Your task to perform on an android device: toggle airplane mode Image 0: 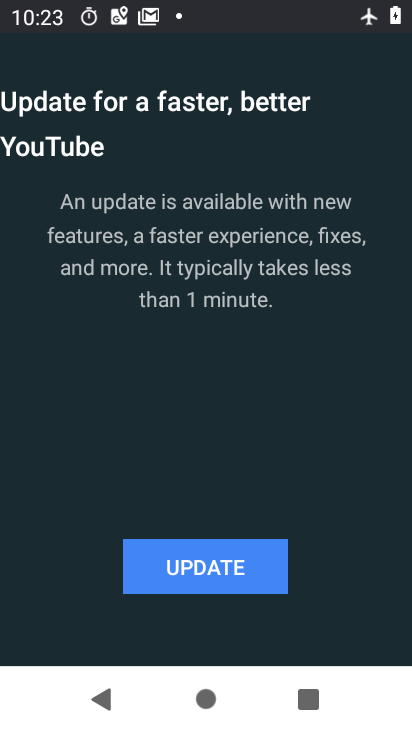
Step 0: press home button
Your task to perform on an android device: toggle airplane mode Image 1: 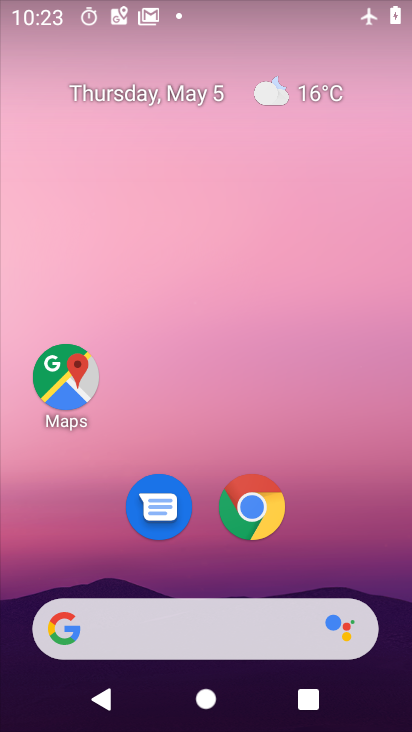
Step 1: drag from (172, 591) to (207, 137)
Your task to perform on an android device: toggle airplane mode Image 2: 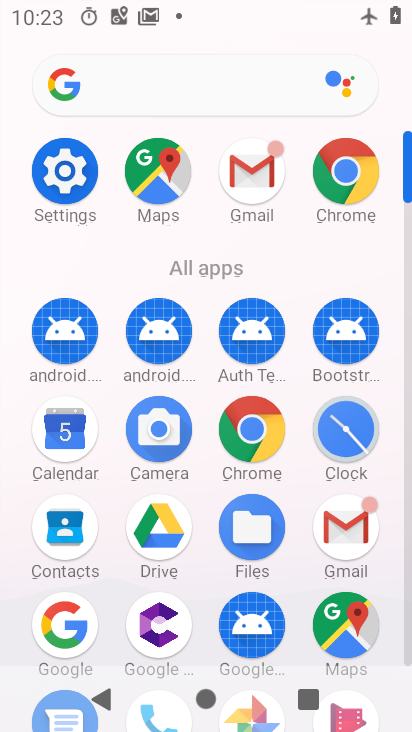
Step 2: click (57, 173)
Your task to perform on an android device: toggle airplane mode Image 3: 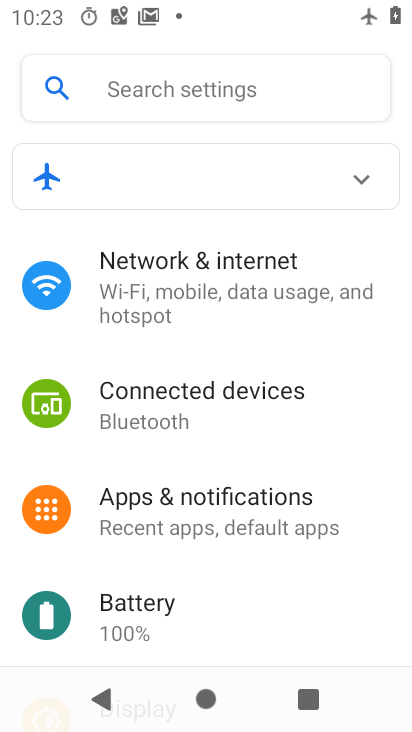
Step 3: click (267, 284)
Your task to perform on an android device: toggle airplane mode Image 4: 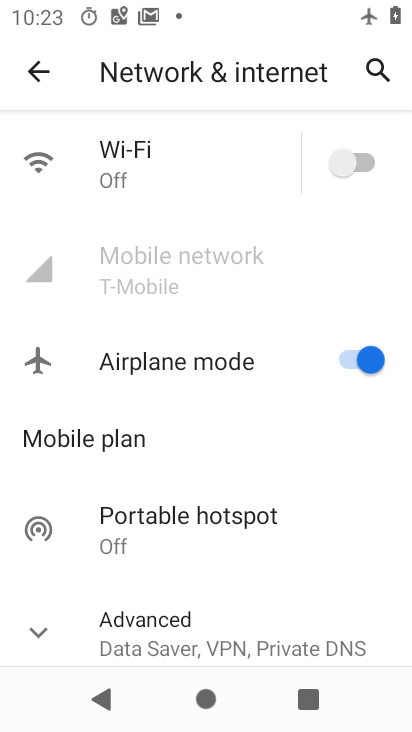
Step 4: click (354, 361)
Your task to perform on an android device: toggle airplane mode Image 5: 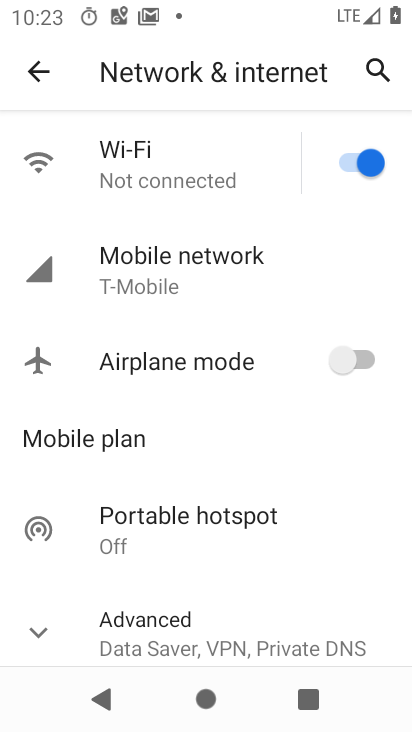
Step 5: task complete